Your task to perform on an android device: Open location settings Image 0: 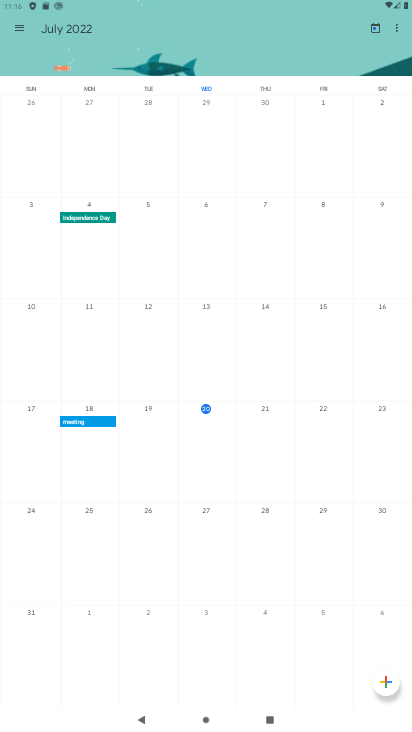
Step 0: press home button
Your task to perform on an android device: Open location settings Image 1: 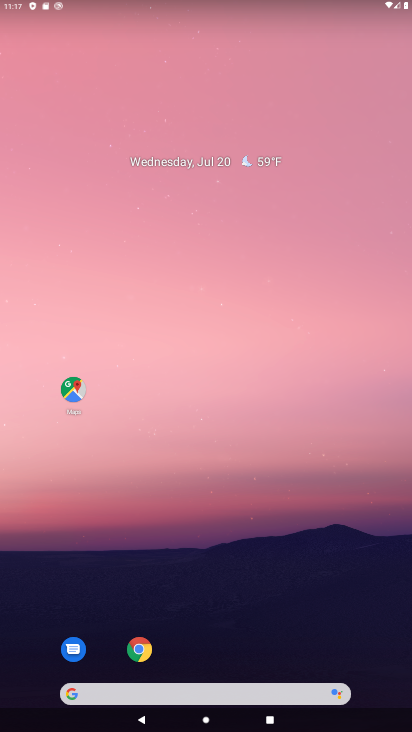
Step 1: drag from (197, 658) to (201, 143)
Your task to perform on an android device: Open location settings Image 2: 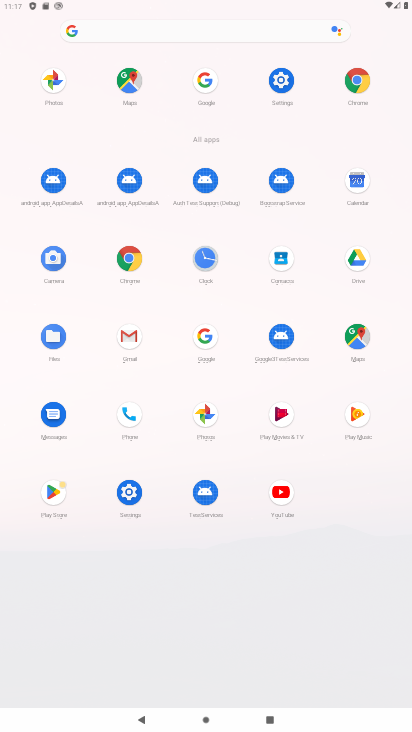
Step 2: click (282, 79)
Your task to perform on an android device: Open location settings Image 3: 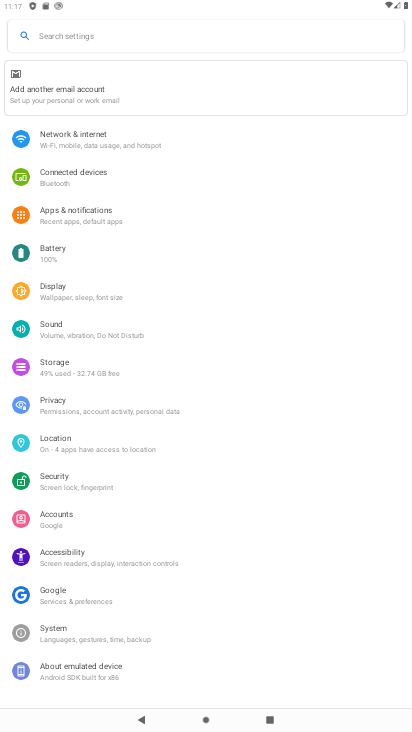
Step 3: click (74, 437)
Your task to perform on an android device: Open location settings Image 4: 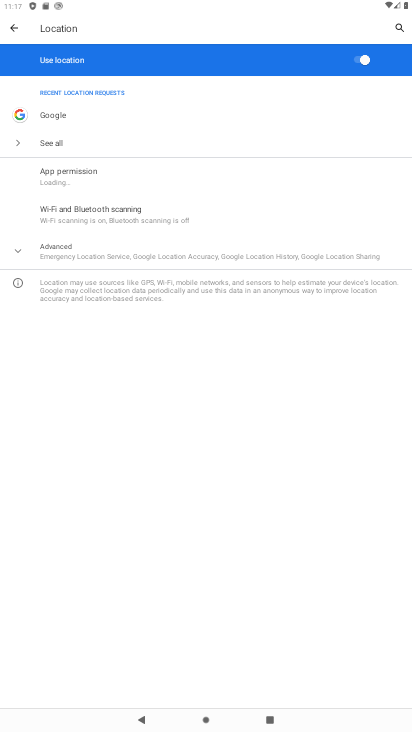
Step 4: task complete